Your task to perform on an android device: Open calendar and show me the second week of next month Image 0: 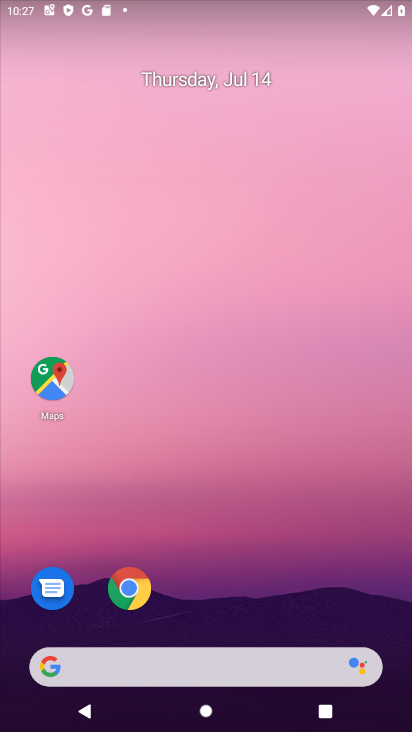
Step 0: press home button
Your task to perform on an android device: Open calendar and show me the second week of next month Image 1: 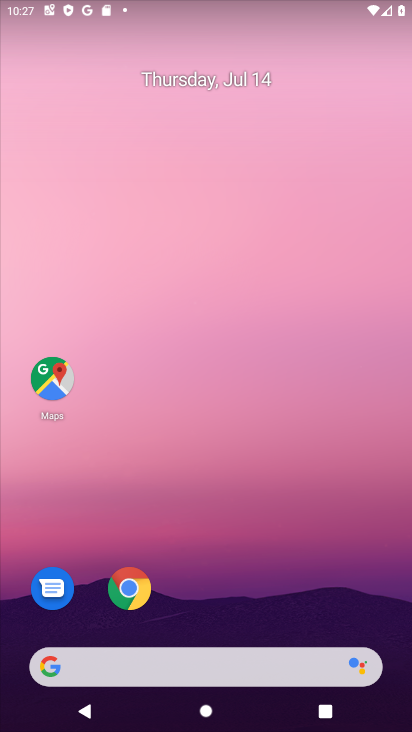
Step 1: drag from (173, 668) to (294, 132)
Your task to perform on an android device: Open calendar and show me the second week of next month Image 2: 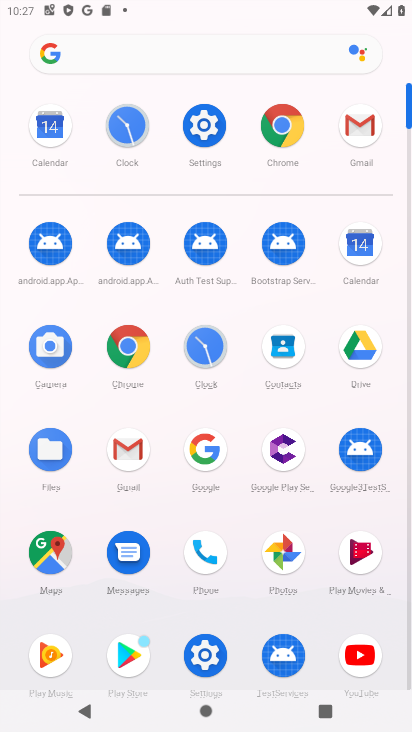
Step 2: click (43, 135)
Your task to perform on an android device: Open calendar and show me the second week of next month Image 3: 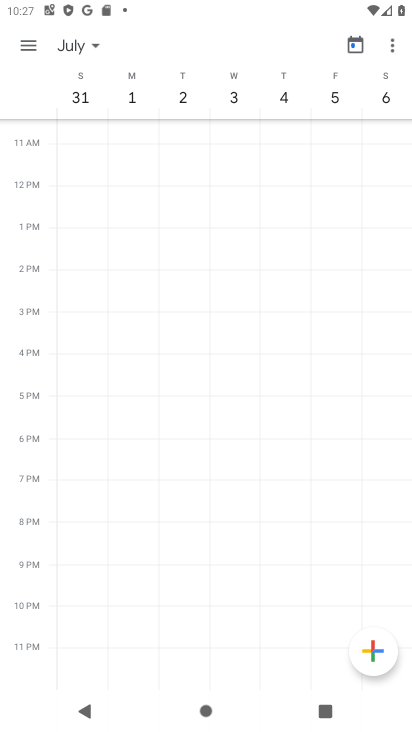
Step 3: click (73, 51)
Your task to perform on an android device: Open calendar and show me the second week of next month Image 4: 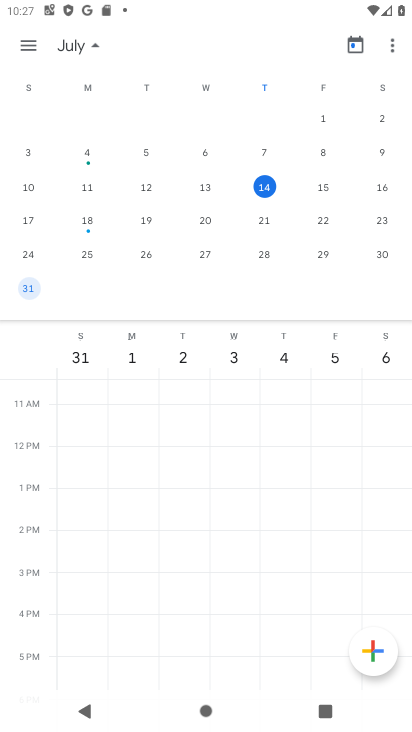
Step 4: drag from (343, 242) to (5, 299)
Your task to perform on an android device: Open calendar and show me the second week of next month Image 5: 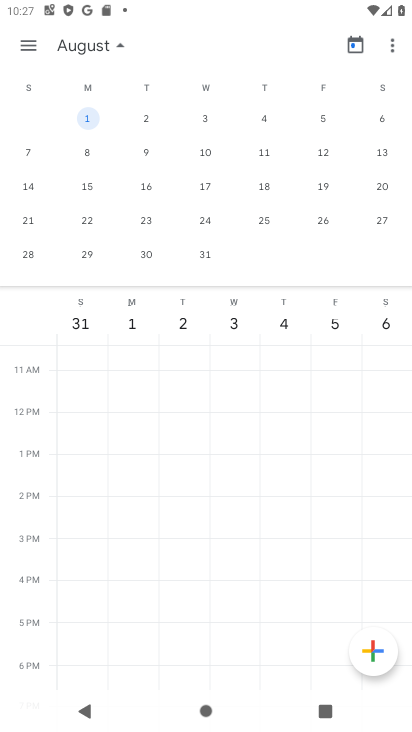
Step 5: click (25, 152)
Your task to perform on an android device: Open calendar and show me the second week of next month Image 6: 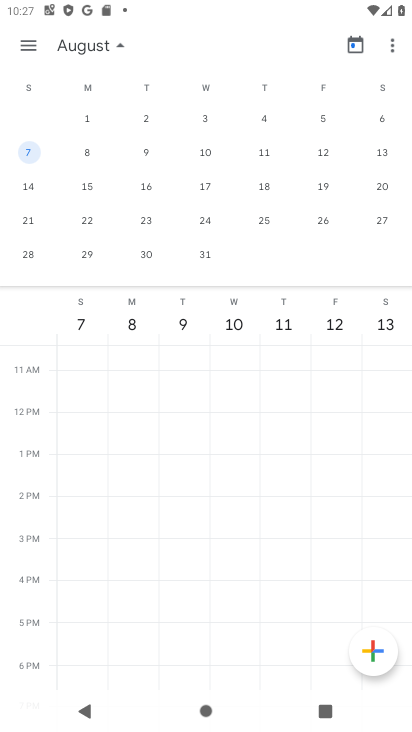
Step 6: click (26, 39)
Your task to perform on an android device: Open calendar and show me the second week of next month Image 7: 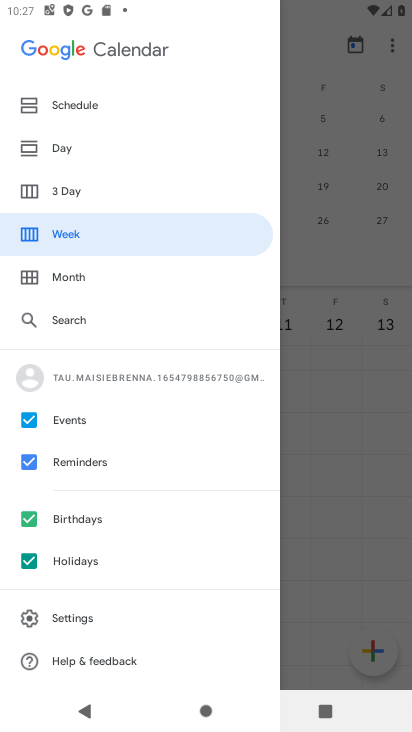
Step 7: click (92, 240)
Your task to perform on an android device: Open calendar and show me the second week of next month Image 8: 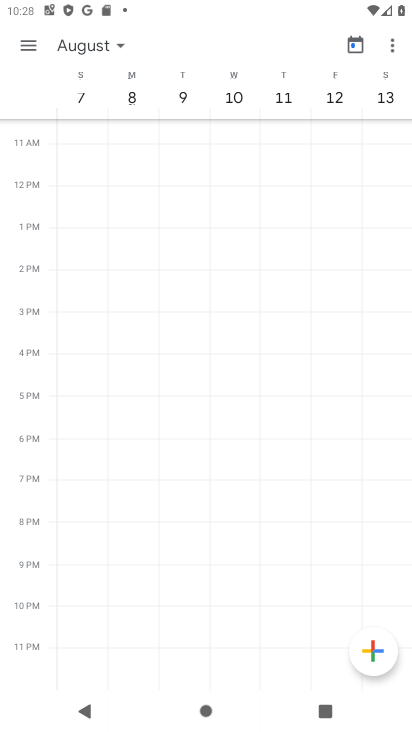
Step 8: task complete